Your task to perform on an android device: change alarm snooze length Image 0: 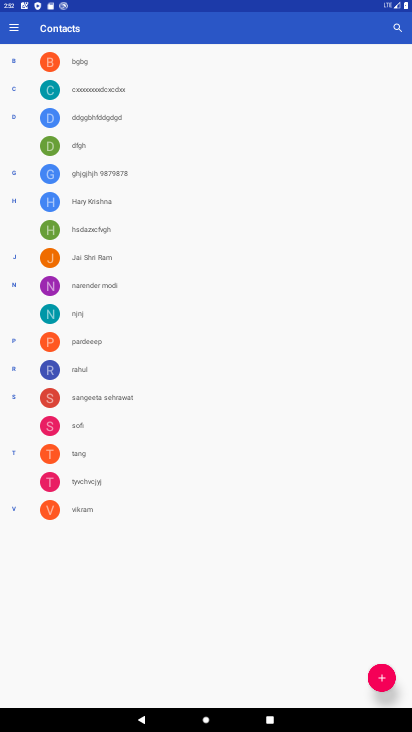
Step 0: drag from (218, 531) to (265, 240)
Your task to perform on an android device: change alarm snooze length Image 1: 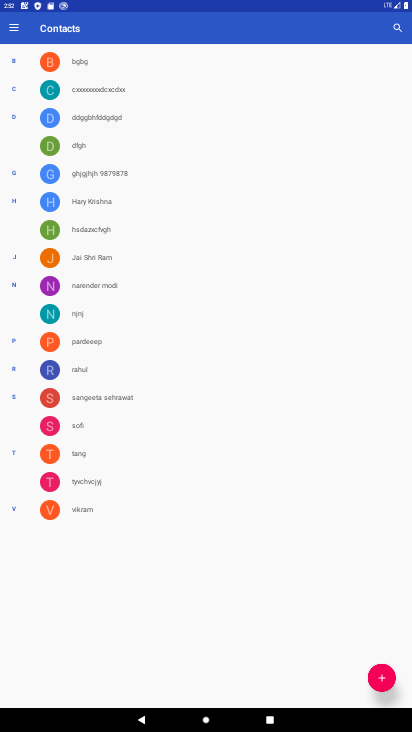
Step 1: press home button
Your task to perform on an android device: change alarm snooze length Image 2: 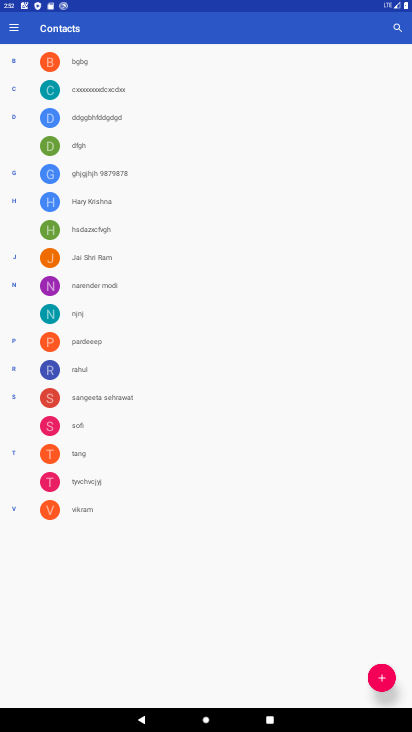
Step 2: press home button
Your task to perform on an android device: change alarm snooze length Image 3: 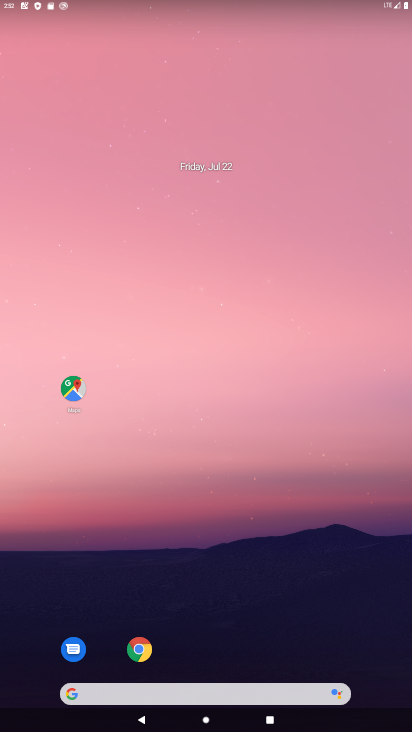
Step 3: drag from (188, 629) to (218, 4)
Your task to perform on an android device: change alarm snooze length Image 4: 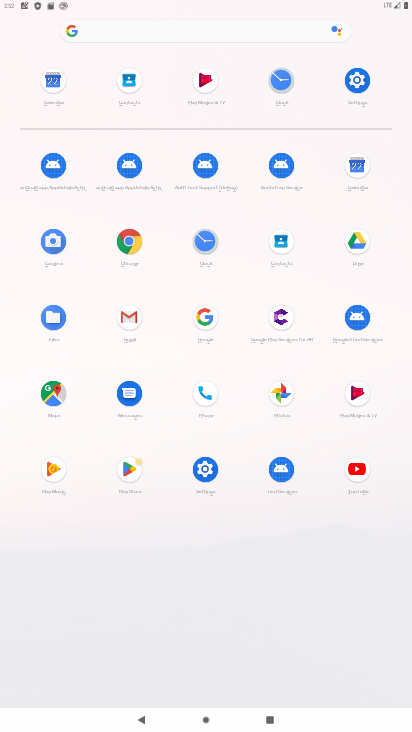
Step 4: click (357, 75)
Your task to perform on an android device: change alarm snooze length Image 5: 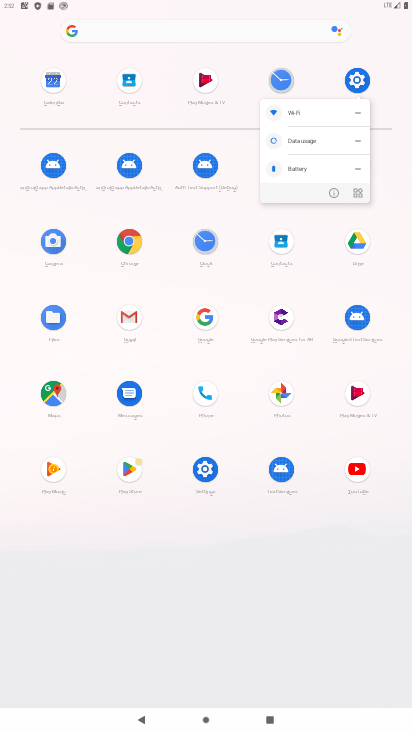
Step 5: click (337, 187)
Your task to perform on an android device: change alarm snooze length Image 6: 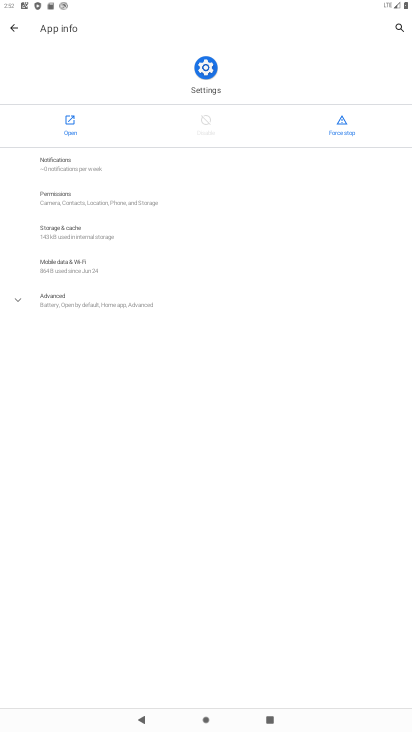
Step 6: click (84, 124)
Your task to perform on an android device: change alarm snooze length Image 7: 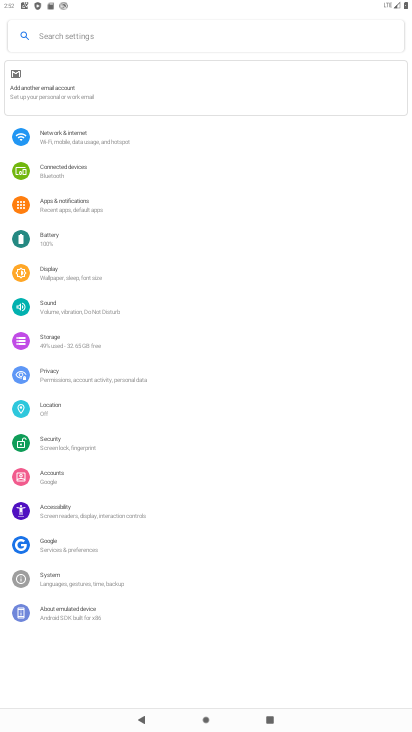
Step 7: press home button
Your task to perform on an android device: change alarm snooze length Image 8: 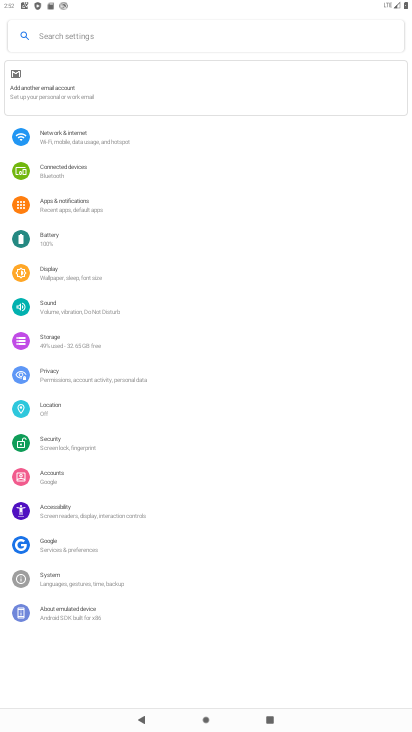
Step 8: drag from (185, 529) to (234, 153)
Your task to perform on an android device: change alarm snooze length Image 9: 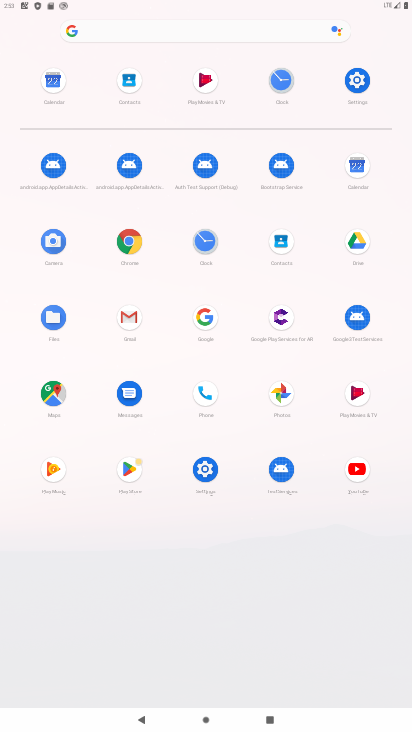
Step 9: click (193, 245)
Your task to perform on an android device: change alarm snooze length Image 10: 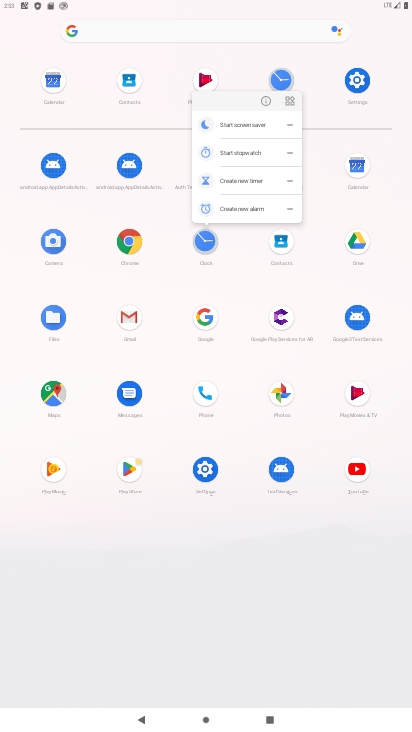
Step 10: click (264, 100)
Your task to perform on an android device: change alarm snooze length Image 11: 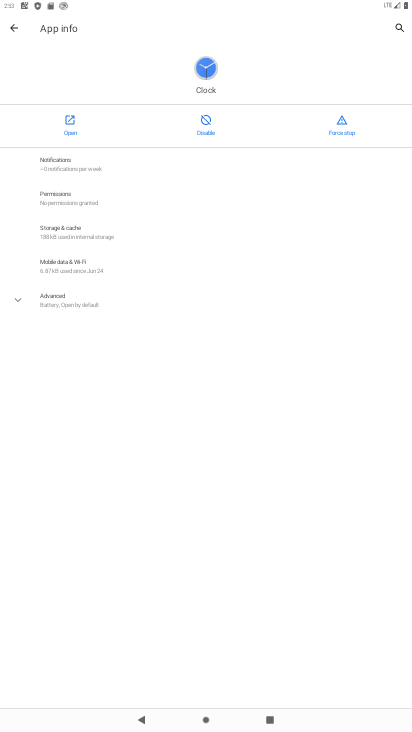
Step 11: click (73, 140)
Your task to perform on an android device: change alarm snooze length Image 12: 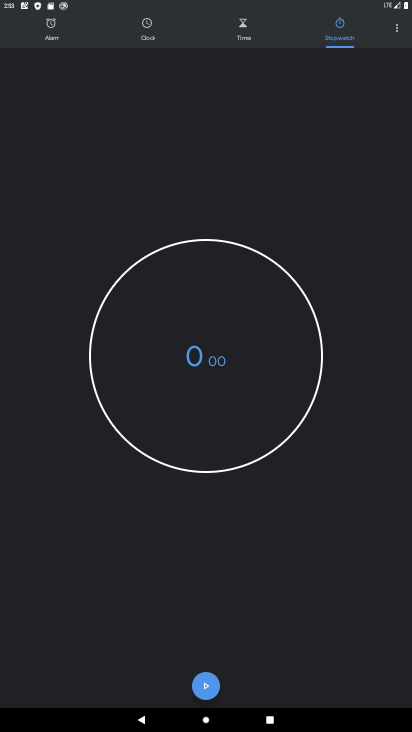
Step 12: click (399, 22)
Your task to perform on an android device: change alarm snooze length Image 13: 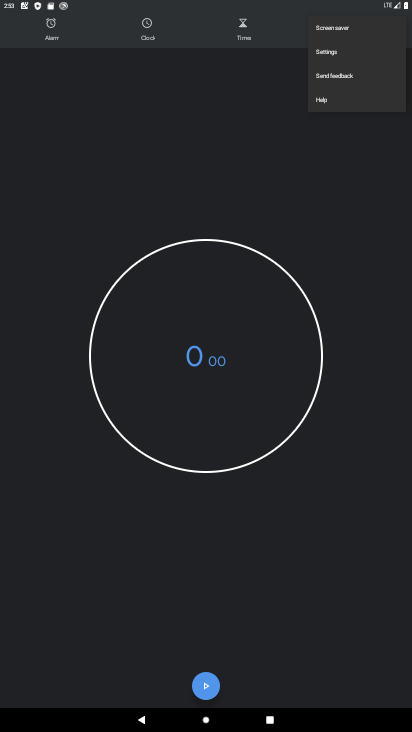
Step 13: click (343, 54)
Your task to perform on an android device: change alarm snooze length Image 14: 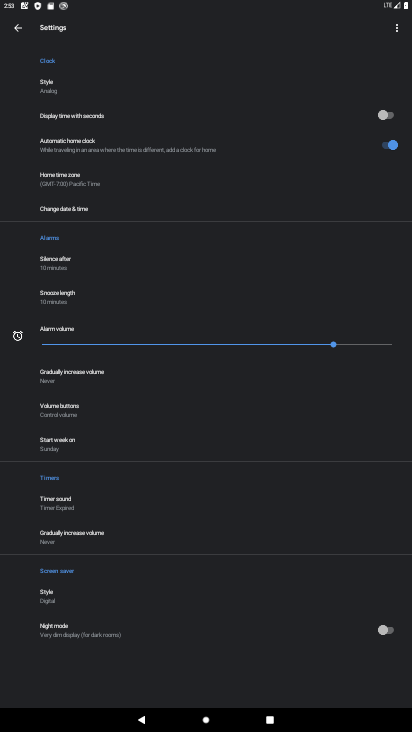
Step 14: drag from (233, 522) to (244, 204)
Your task to perform on an android device: change alarm snooze length Image 15: 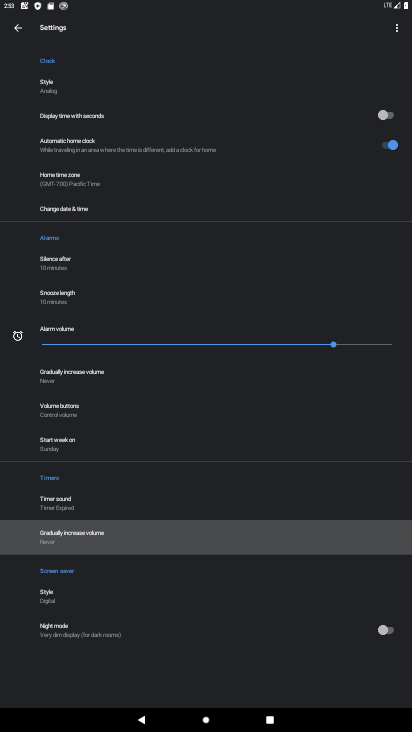
Step 15: drag from (252, 148) to (288, 722)
Your task to perform on an android device: change alarm snooze length Image 16: 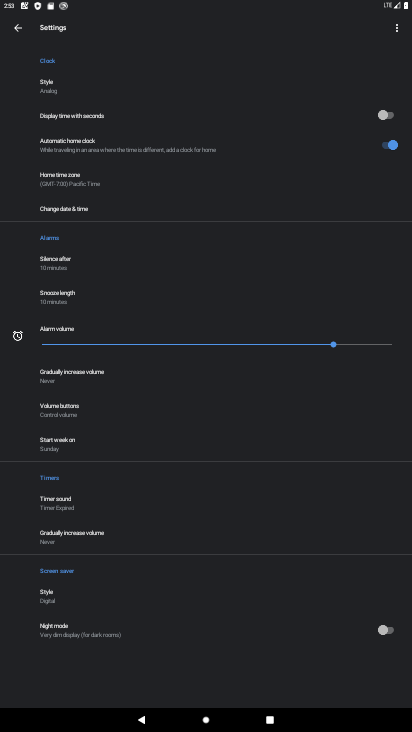
Step 16: click (88, 302)
Your task to perform on an android device: change alarm snooze length Image 17: 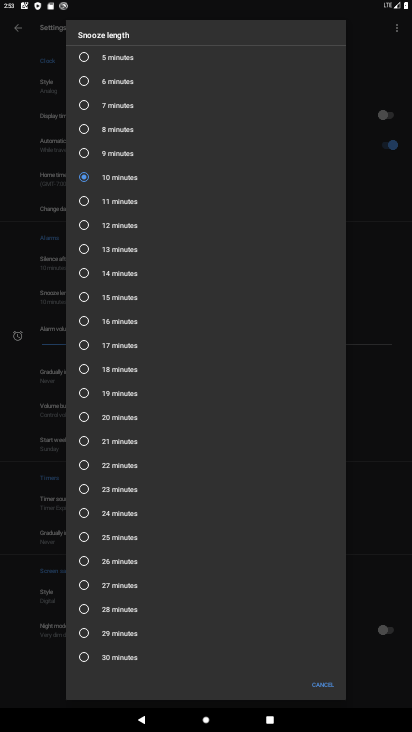
Step 17: drag from (85, 74) to (179, 674)
Your task to perform on an android device: change alarm snooze length Image 18: 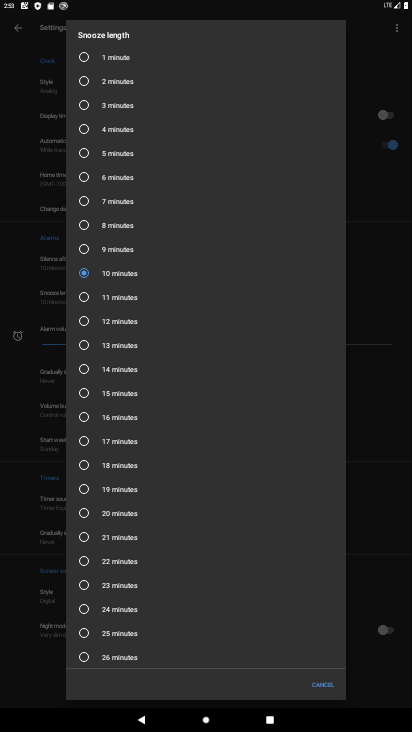
Step 18: click (75, 60)
Your task to perform on an android device: change alarm snooze length Image 19: 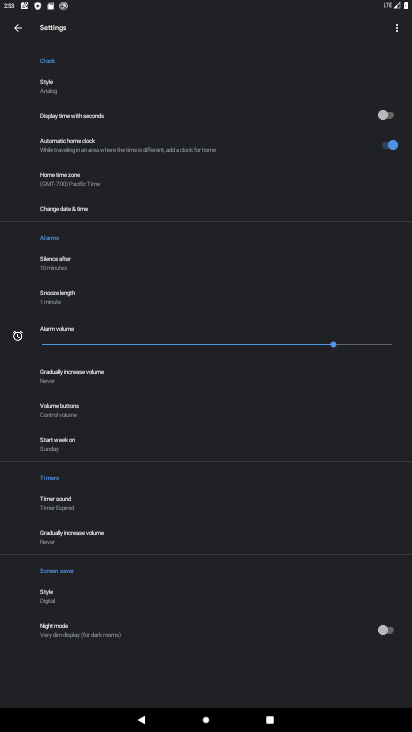
Step 19: task complete